Your task to perform on an android device: Check the news Image 0: 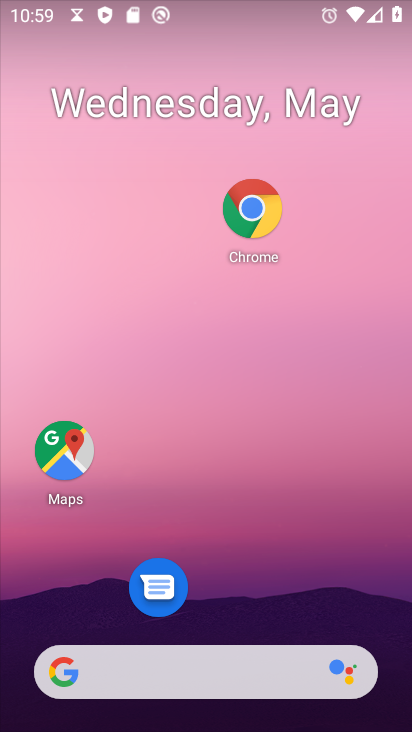
Step 0: drag from (239, 617) to (301, 257)
Your task to perform on an android device: Check the news Image 1: 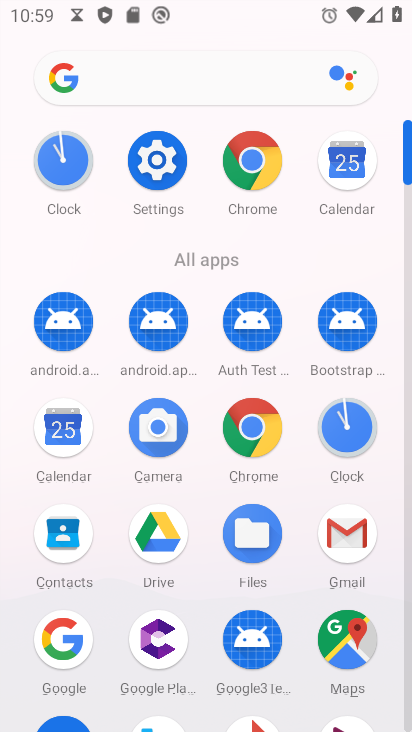
Step 1: click (76, 667)
Your task to perform on an android device: Check the news Image 2: 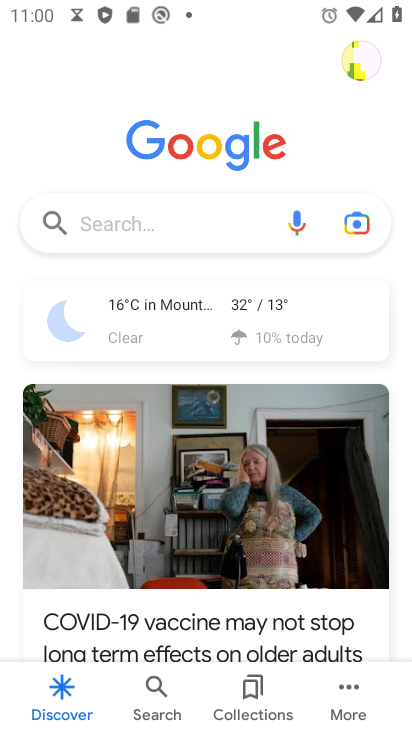
Step 2: drag from (189, 626) to (183, 0)
Your task to perform on an android device: Check the news Image 3: 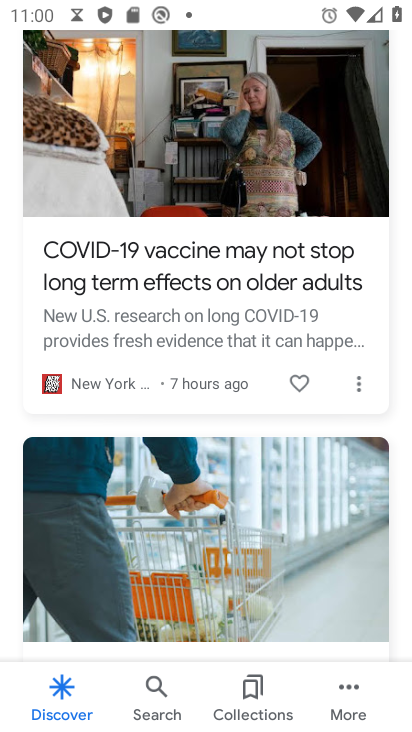
Step 3: drag from (151, 274) to (49, 729)
Your task to perform on an android device: Check the news Image 4: 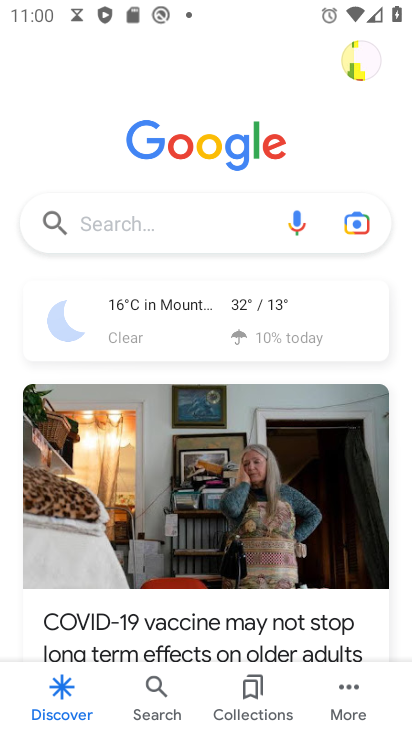
Step 4: click (101, 216)
Your task to perform on an android device: Check the news Image 5: 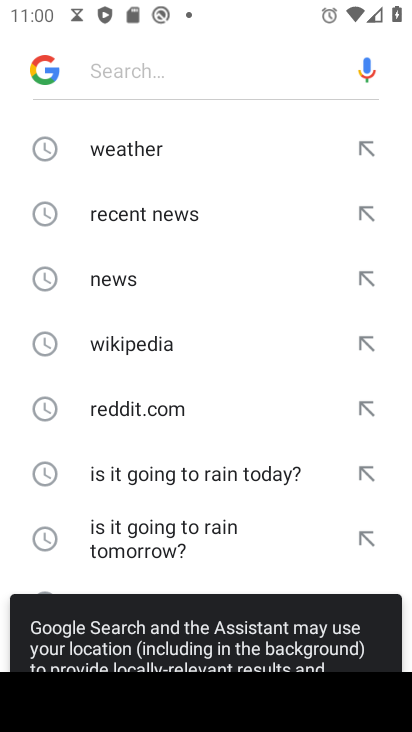
Step 5: click (139, 280)
Your task to perform on an android device: Check the news Image 6: 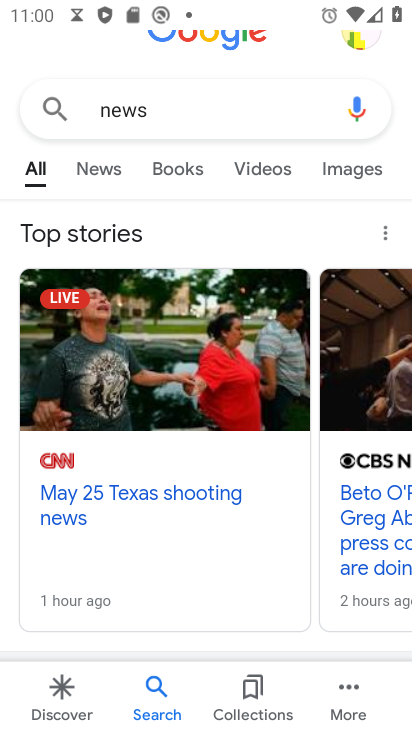
Step 6: task complete